Your task to perform on an android device: turn on translation in the chrome app Image 0: 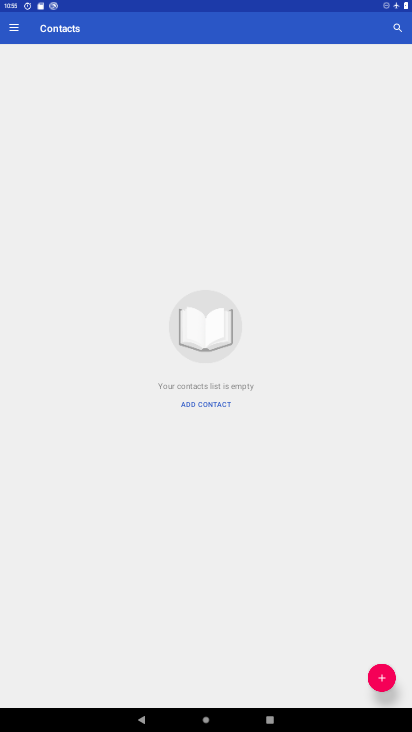
Step 0: press home button
Your task to perform on an android device: turn on translation in the chrome app Image 1: 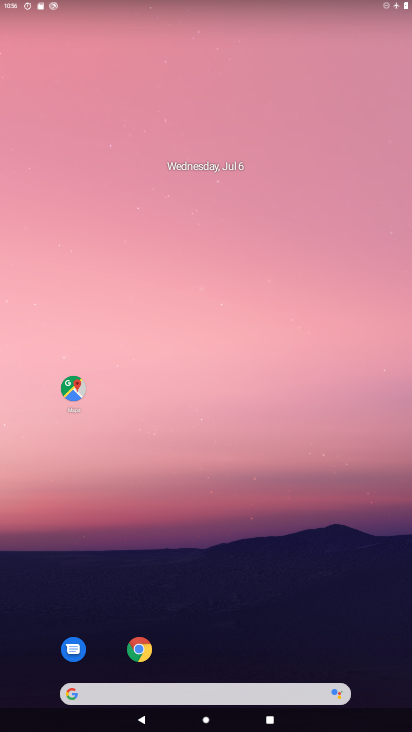
Step 1: click (135, 658)
Your task to perform on an android device: turn on translation in the chrome app Image 2: 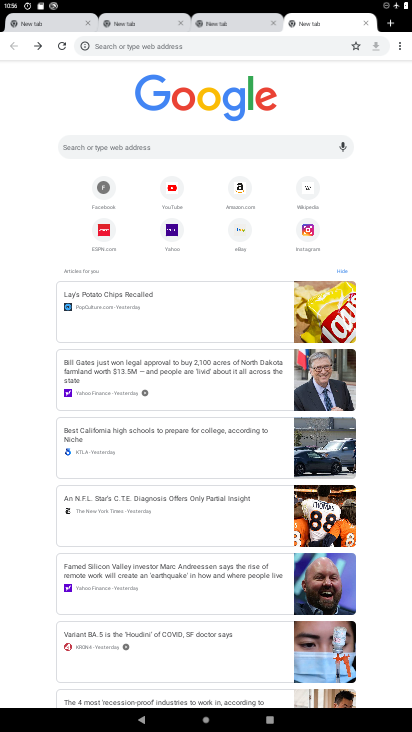
Step 2: click (399, 42)
Your task to perform on an android device: turn on translation in the chrome app Image 3: 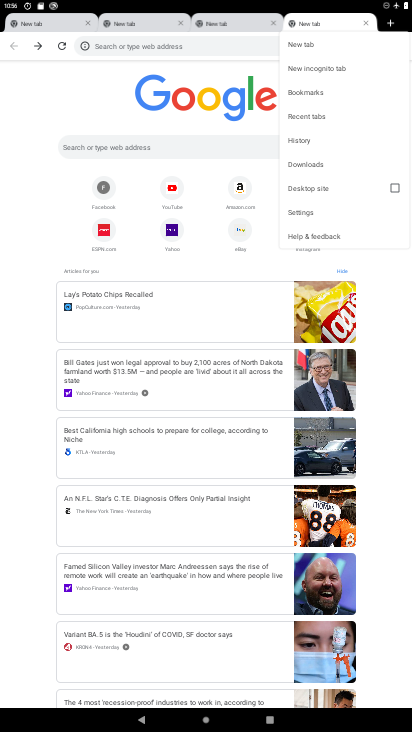
Step 3: click (296, 211)
Your task to perform on an android device: turn on translation in the chrome app Image 4: 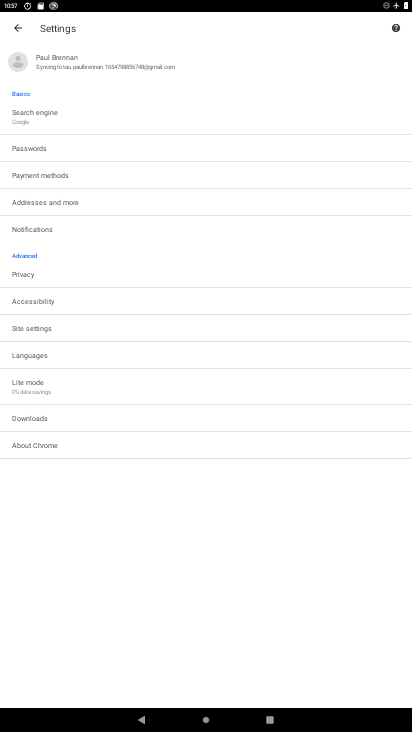
Step 4: click (39, 356)
Your task to perform on an android device: turn on translation in the chrome app Image 5: 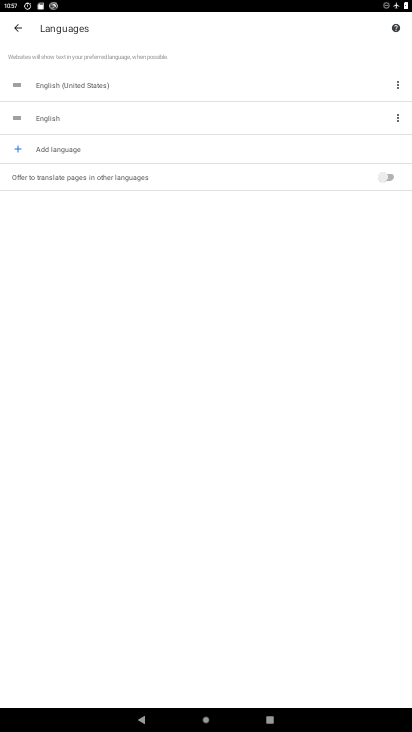
Step 5: click (387, 174)
Your task to perform on an android device: turn on translation in the chrome app Image 6: 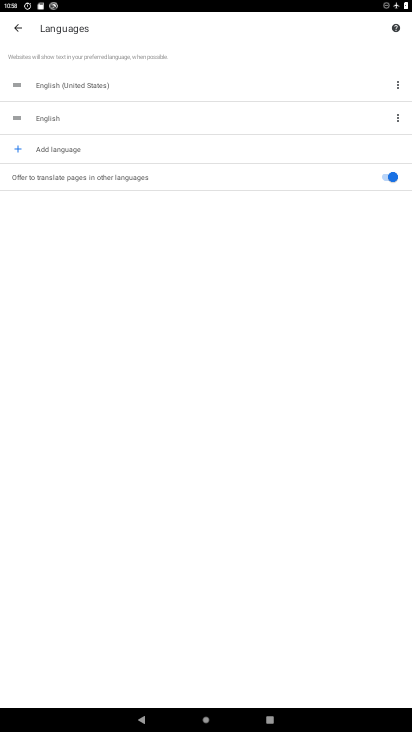
Step 6: task complete